Your task to perform on an android device: Open sound settings Image 0: 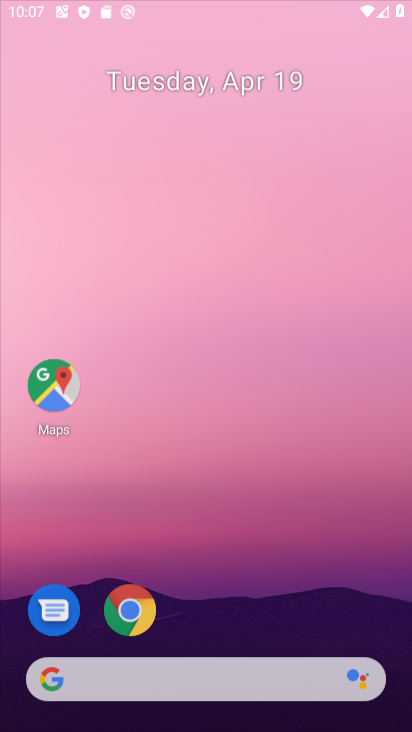
Step 0: click (382, 3)
Your task to perform on an android device: Open sound settings Image 1: 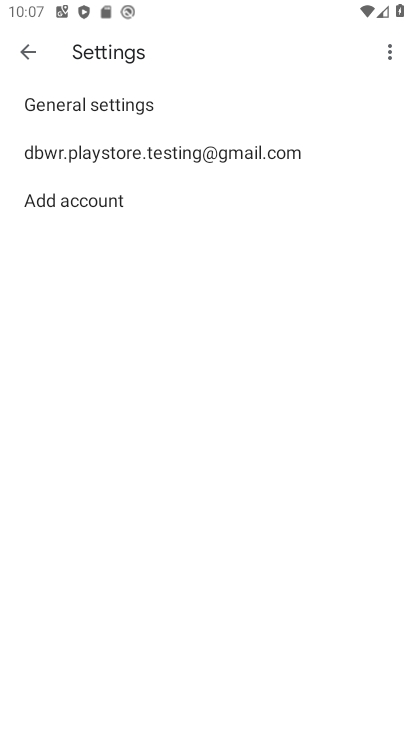
Step 1: click (124, 158)
Your task to perform on an android device: Open sound settings Image 2: 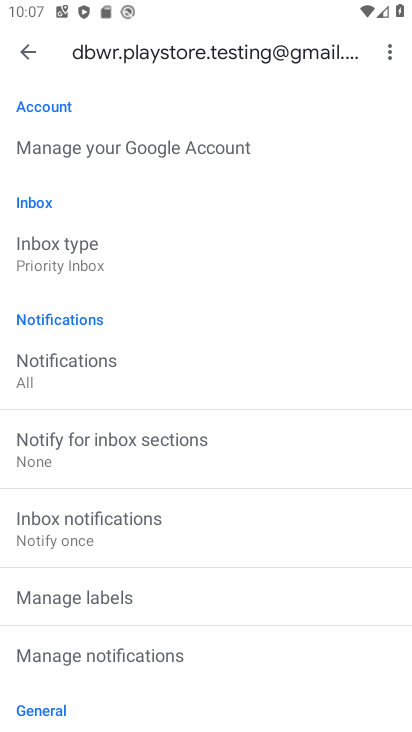
Step 2: drag from (185, 620) to (281, 219)
Your task to perform on an android device: Open sound settings Image 3: 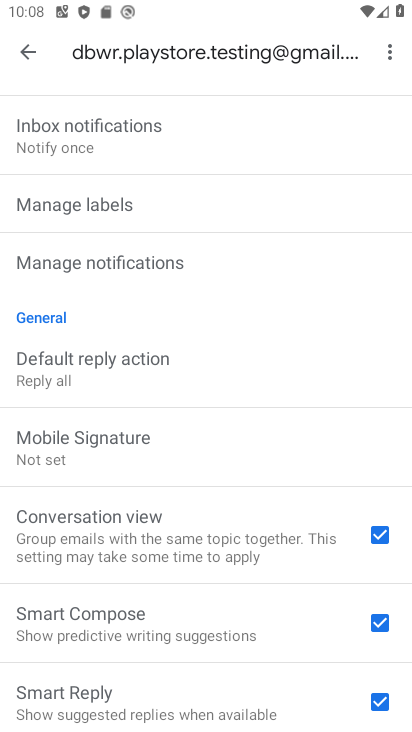
Step 3: drag from (229, 631) to (325, 288)
Your task to perform on an android device: Open sound settings Image 4: 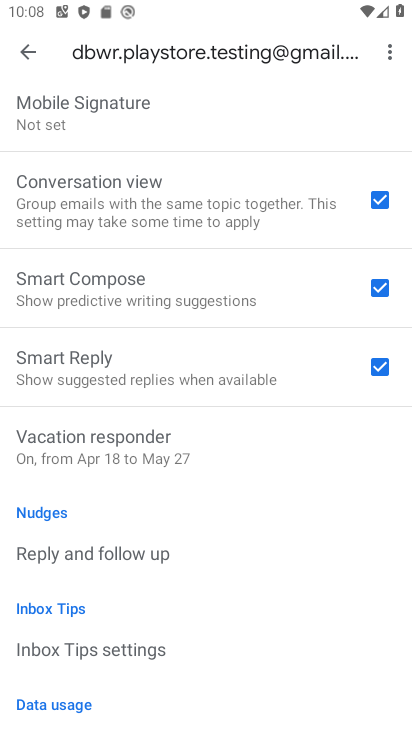
Step 4: drag from (254, 536) to (297, 707)
Your task to perform on an android device: Open sound settings Image 5: 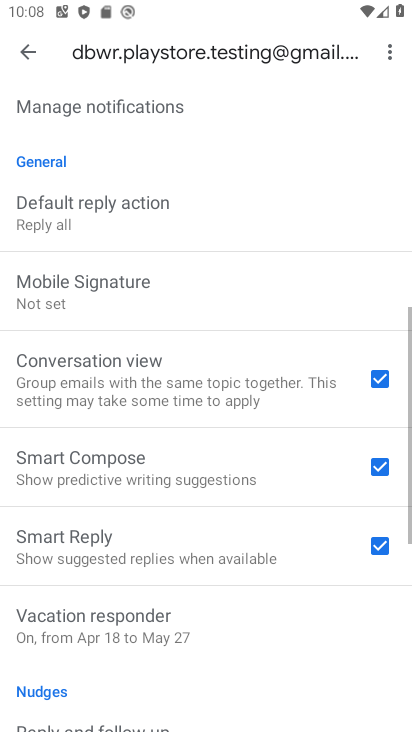
Step 5: drag from (203, 321) to (311, 82)
Your task to perform on an android device: Open sound settings Image 6: 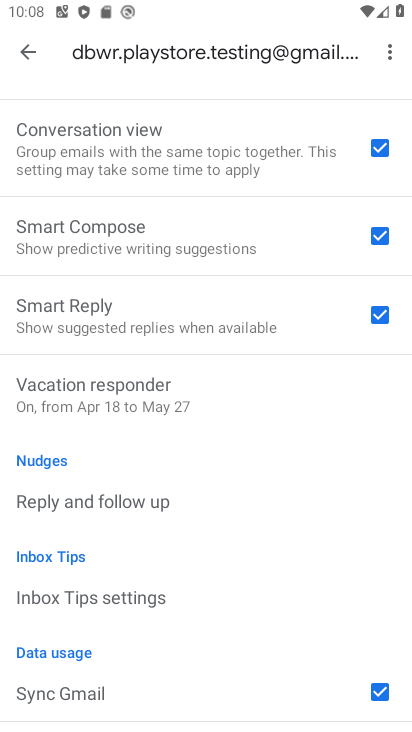
Step 6: drag from (219, 173) to (235, 573)
Your task to perform on an android device: Open sound settings Image 7: 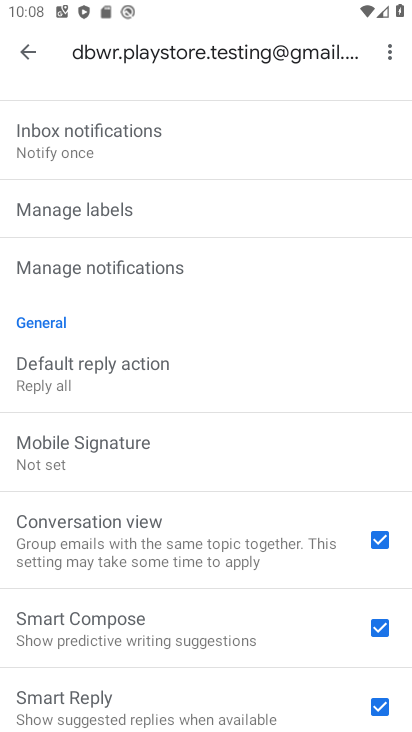
Step 7: drag from (226, 473) to (257, 604)
Your task to perform on an android device: Open sound settings Image 8: 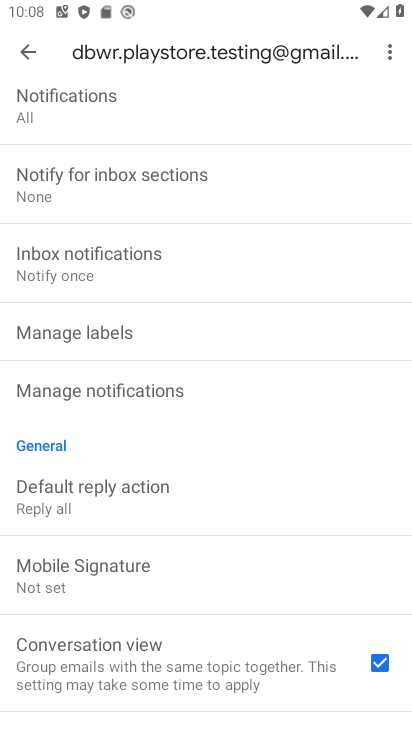
Step 8: drag from (228, 207) to (277, 575)
Your task to perform on an android device: Open sound settings Image 9: 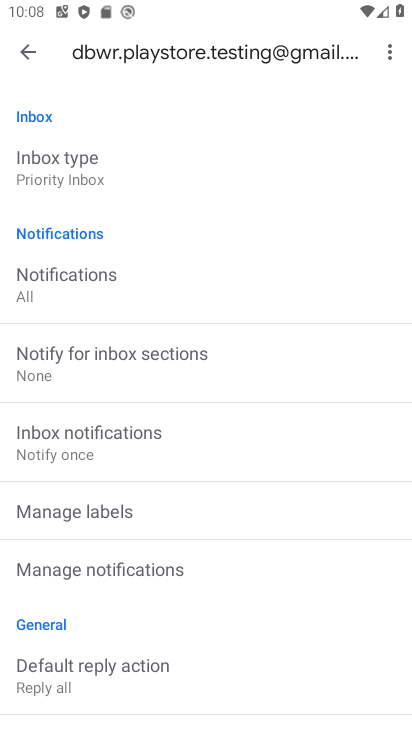
Step 9: press home button
Your task to perform on an android device: Open sound settings Image 10: 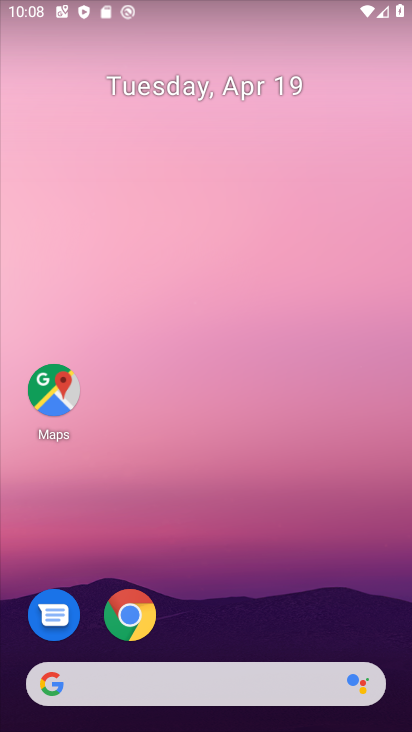
Step 10: drag from (194, 621) to (211, 55)
Your task to perform on an android device: Open sound settings Image 11: 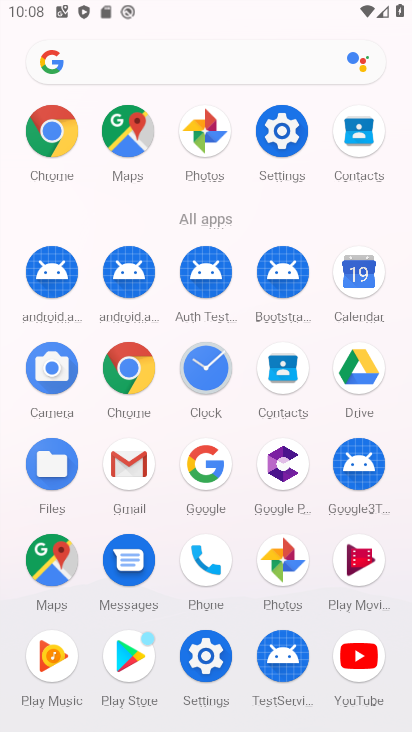
Step 11: click (283, 132)
Your task to perform on an android device: Open sound settings Image 12: 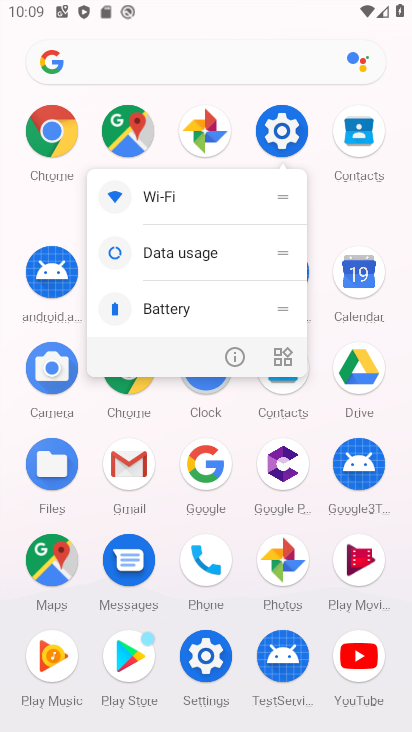
Step 12: click (230, 348)
Your task to perform on an android device: Open sound settings Image 13: 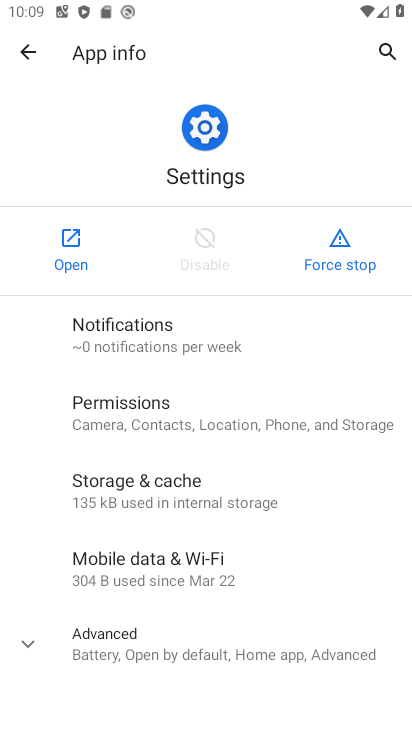
Step 13: click (73, 243)
Your task to perform on an android device: Open sound settings Image 14: 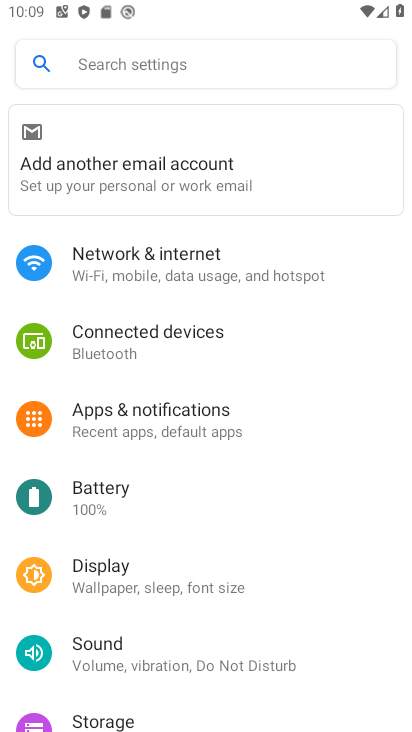
Step 14: drag from (247, 620) to (303, 203)
Your task to perform on an android device: Open sound settings Image 15: 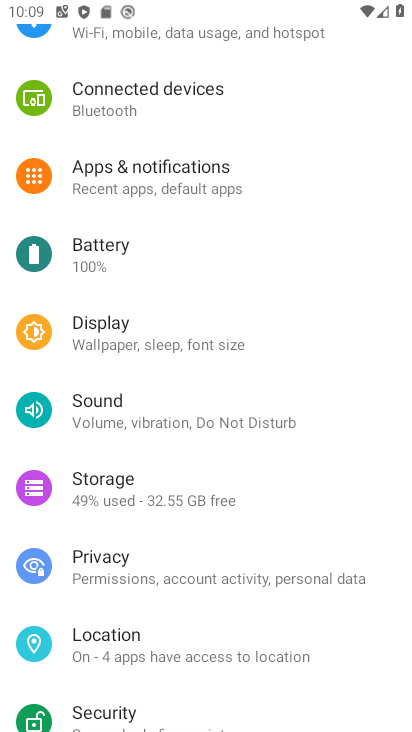
Step 15: click (168, 407)
Your task to perform on an android device: Open sound settings Image 16: 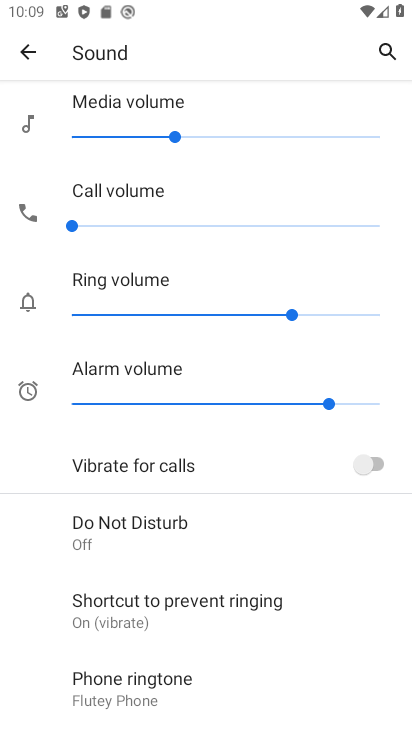
Step 16: task complete